Your task to perform on an android device: What is the news today? Image 0: 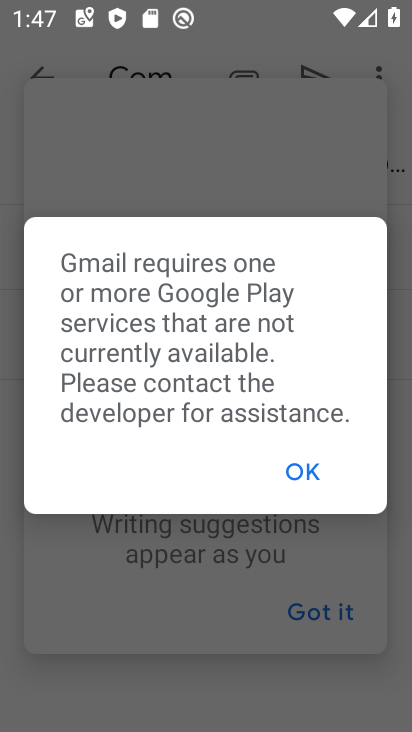
Step 0: press home button
Your task to perform on an android device: What is the news today? Image 1: 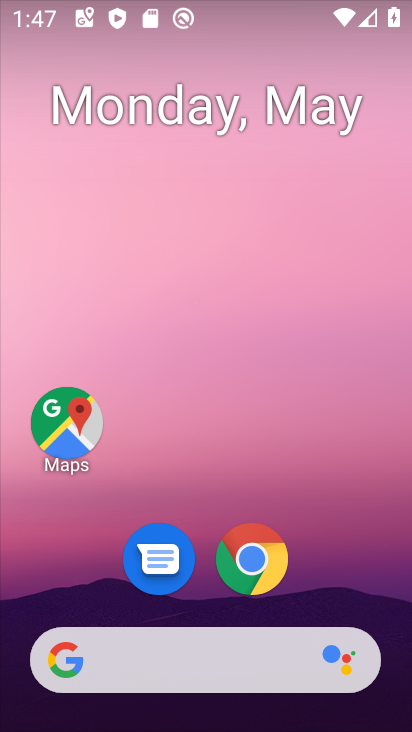
Step 1: click (222, 675)
Your task to perform on an android device: What is the news today? Image 2: 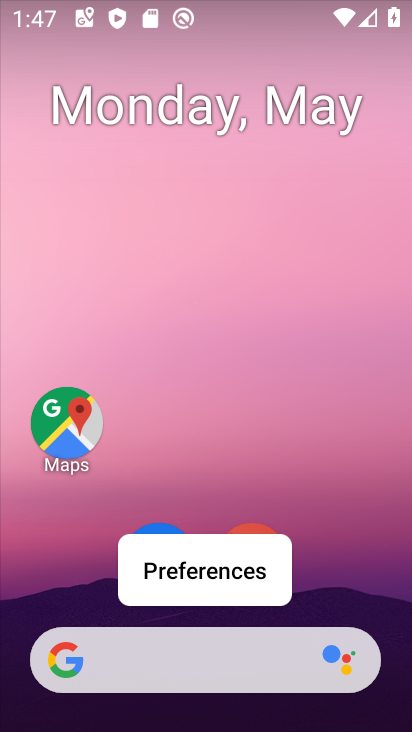
Step 2: click (232, 665)
Your task to perform on an android device: What is the news today? Image 3: 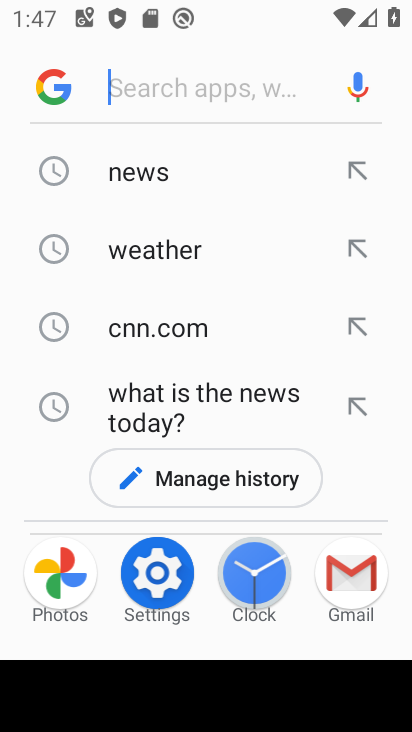
Step 3: click (231, 404)
Your task to perform on an android device: What is the news today? Image 4: 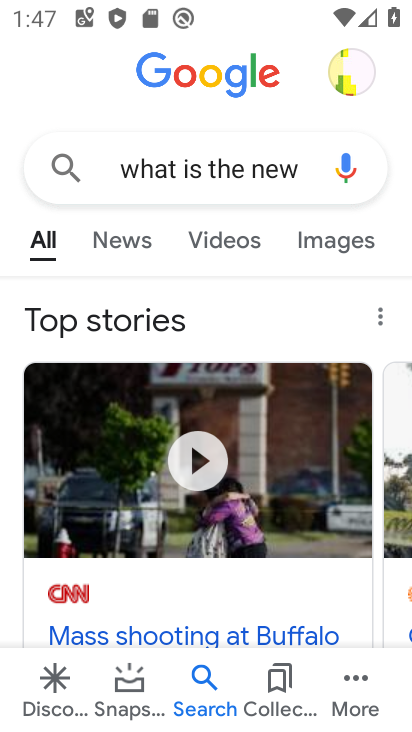
Step 4: task complete